Your task to perform on an android device: turn off javascript in the chrome app Image 0: 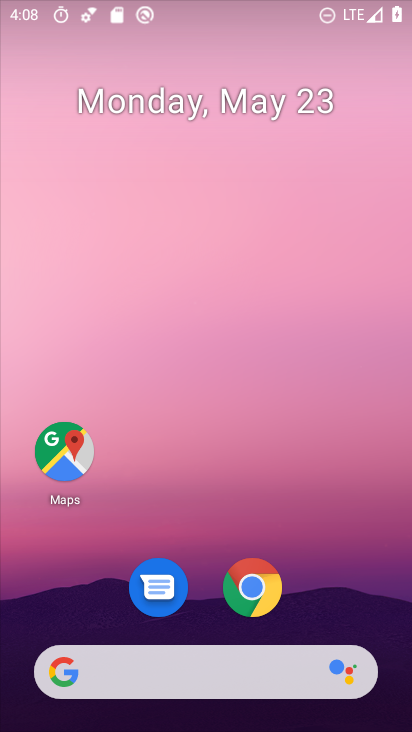
Step 0: click (244, 594)
Your task to perform on an android device: turn off javascript in the chrome app Image 1: 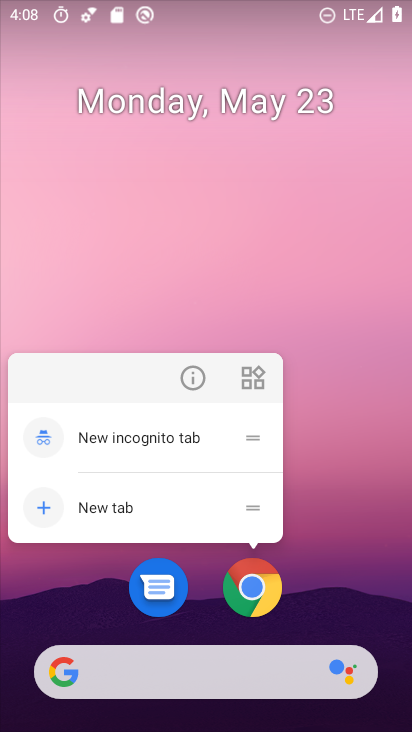
Step 1: click (328, 344)
Your task to perform on an android device: turn off javascript in the chrome app Image 2: 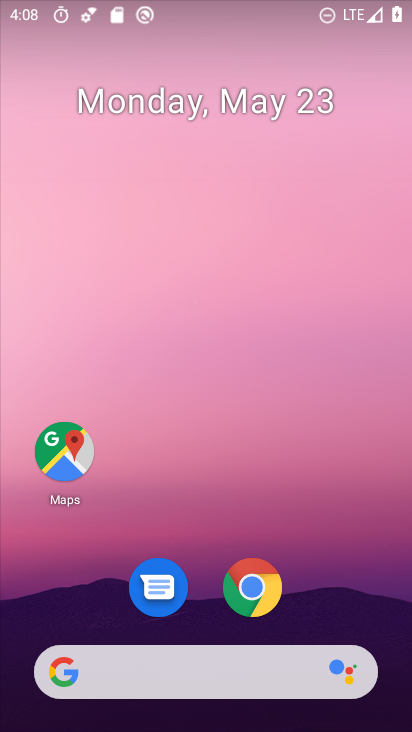
Step 2: drag from (203, 613) to (234, 0)
Your task to perform on an android device: turn off javascript in the chrome app Image 3: 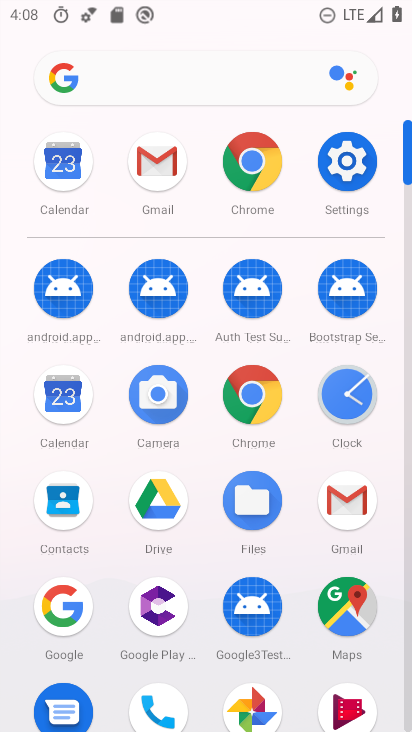
Step 3: click (242, 176)
Your task to perform on an android device: turn off javascript in the chrome app Image 4: 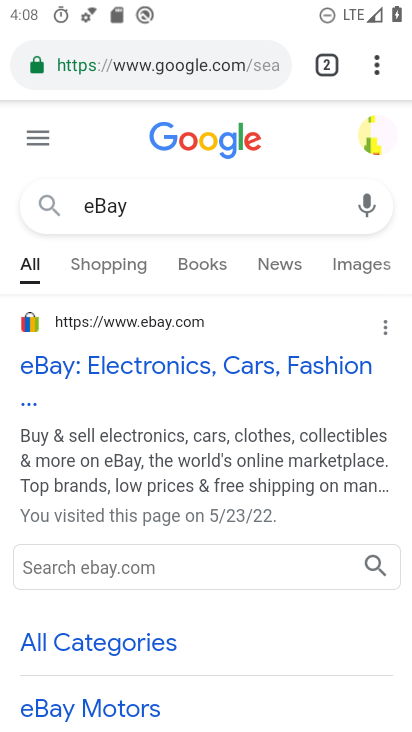
Step 4: click (379, 69)
Your task to perform on an android device: turn off javascript in the chrome app Image 5: 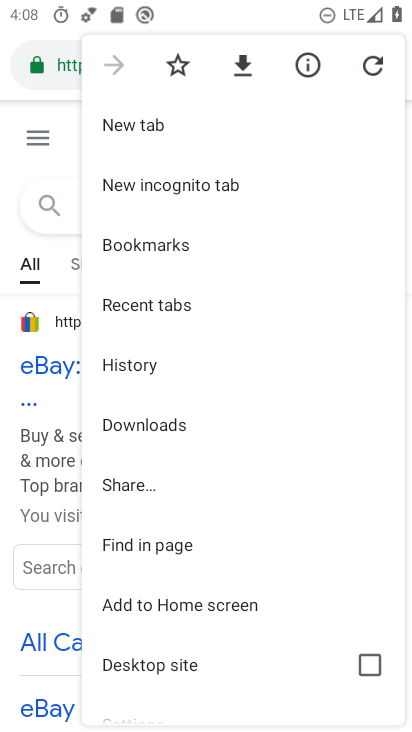
Step 5: drag from (175, 646) to (235, 257)
Your task to perform on an android device: turn off javascript in the chrome app Image 6: 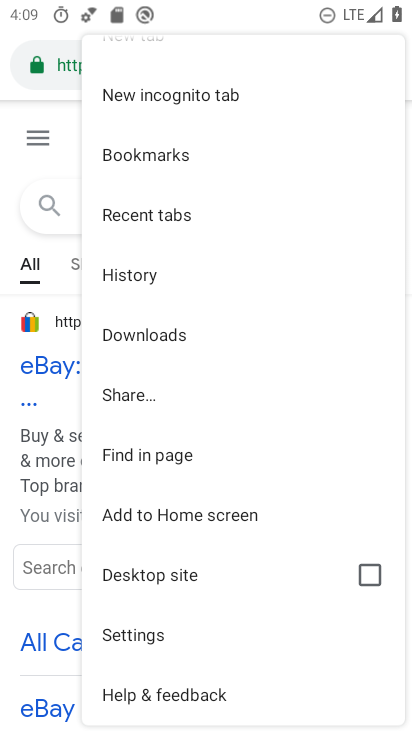
Step 6: click (135, 641)
Your task to perform on an android device: turn off javascript in the chrome app Image 7: 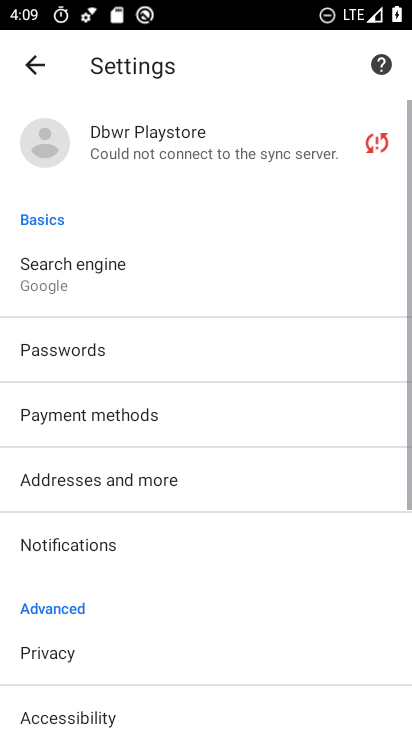
Step 7: drag from (100, 628) to (185, 219)
Your task to perform on an android device: turn off javascript in the chrome app Image 8: 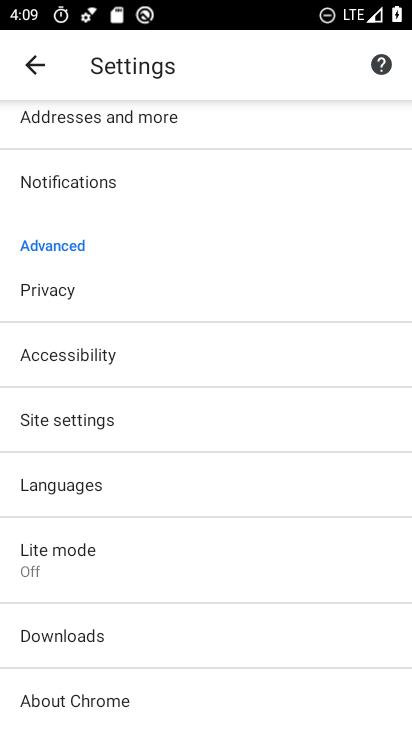
Step 8: click (93, 564)
Your task to perform on an android device: turn off javascript in the chrome app Image 9: 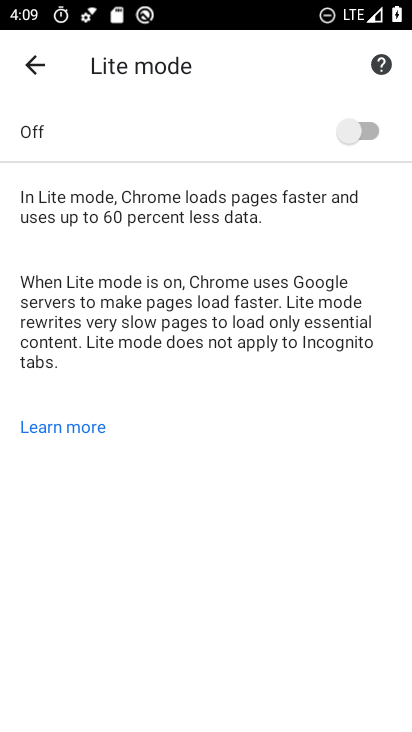
Step 9: click (30, 49)
Your task to perform on an android device: turn off javascript in the chrome app Image 10: 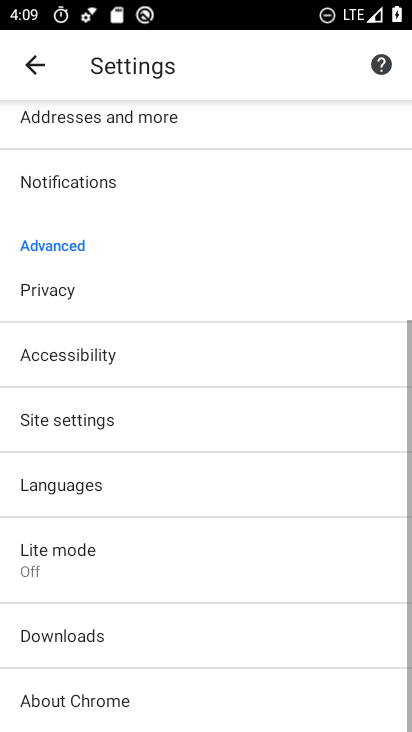
Step 10: click (93, 420)
Your task to perform on an android device: turn off javascript in the chrome app Image 11: 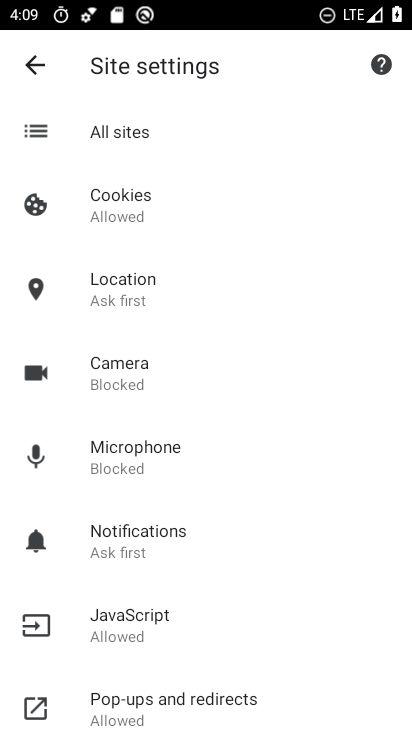
Step 11: click (136, 624)
Your task to perform on an android device: turn off javascript in the chrome app Image 12: 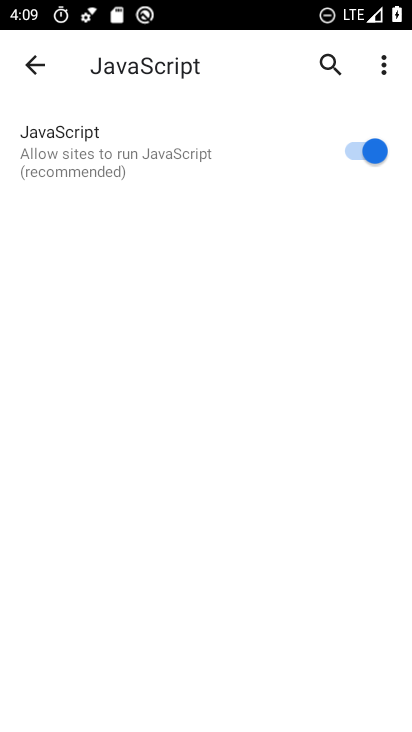
Step 12: click (349, 152)
Your task to perform on an android device: turn off javascript in the chrome app Image 13: 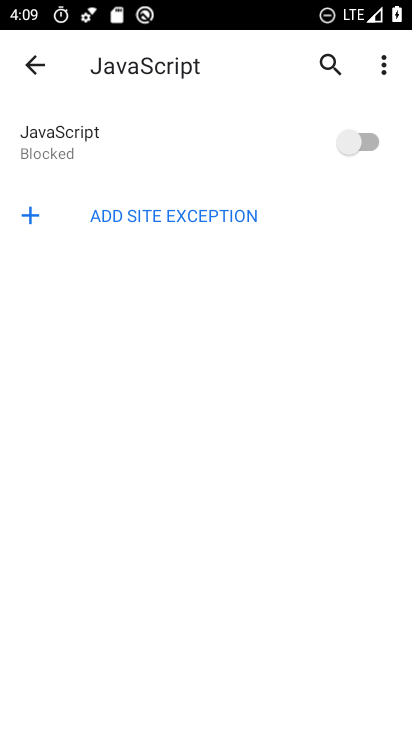
Step 13: task complete